Your task to perform on an android device: Go to Maps Image 0: 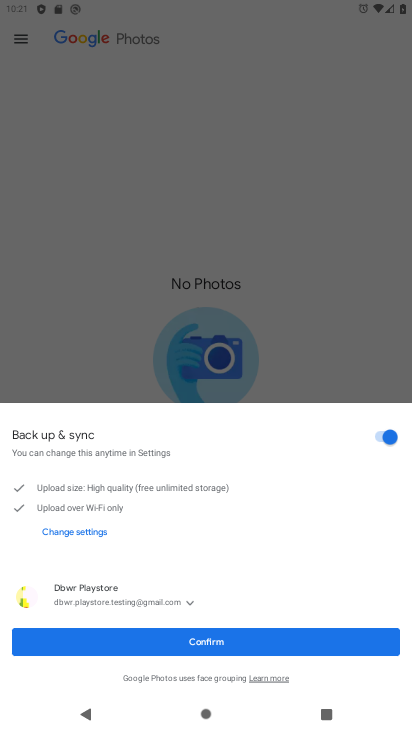
Step 0: press home button
Your task to perform on an android device: Go to Maps Image 1: 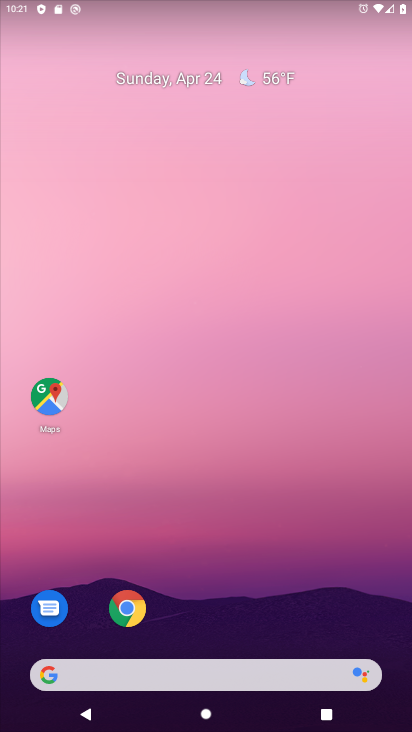
Step 1: drag from (223, 643) to (209, 12)
Your task to perform on an android device: Go to Maps Image 2: 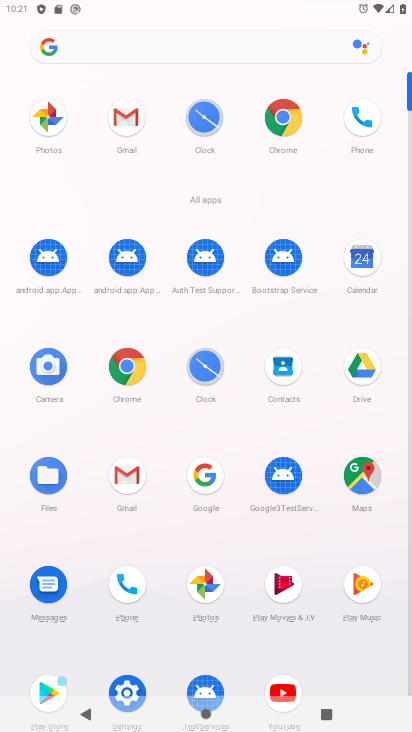
Step 2: click (353, 488)
Your task to perform on an android device: Go to Maps Image 3: 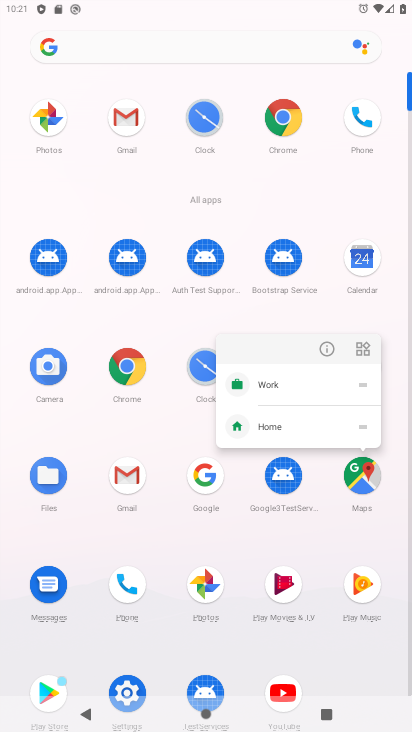
Step 3: click (363, 476)
Your task to perform on an android device: Go to Maps Image 4: 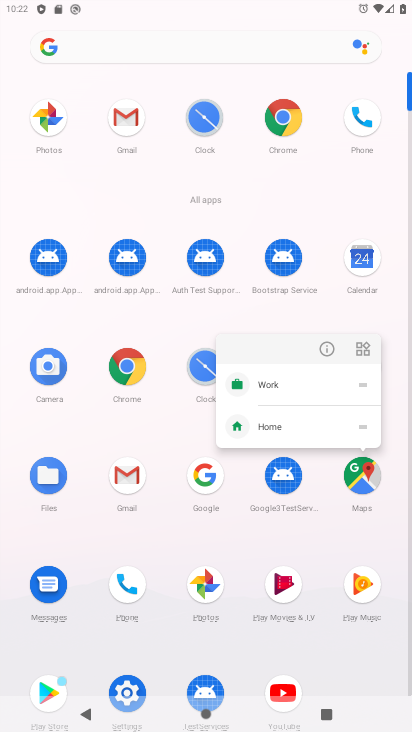
Step 4: click (358, 481)
Your task to perform on an android device: Go to Maps Image 5: 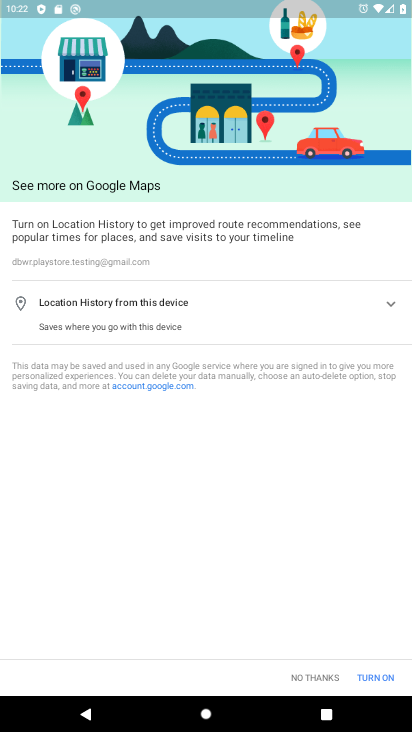
Step 5: click (393, 679)
Your task to perform on an android device: Go to Maps Image 6: 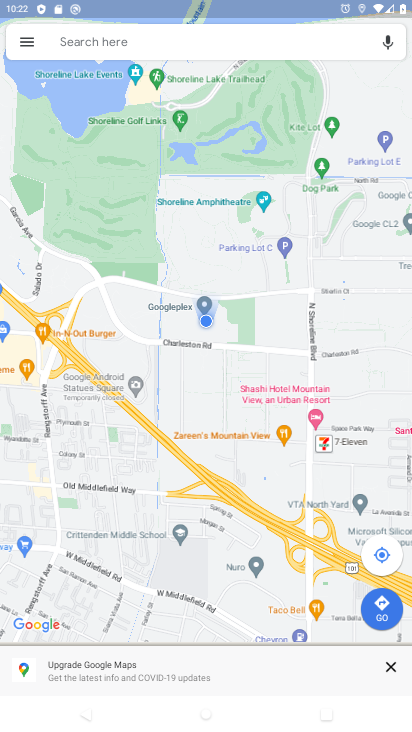
Step 6: task complete